Your task to perform on an android device: Open Google Maps and go to "Timeline" Image 0: 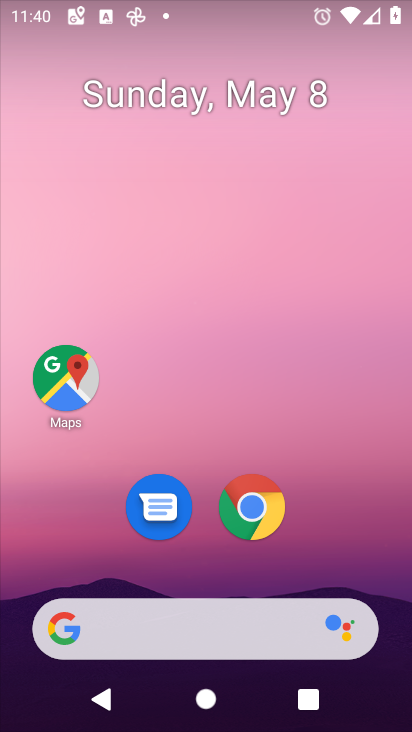
Step 0: click (70, 381)
Your task to perform on an android device: Open Google Maps and go to "Timeline" Image 1: 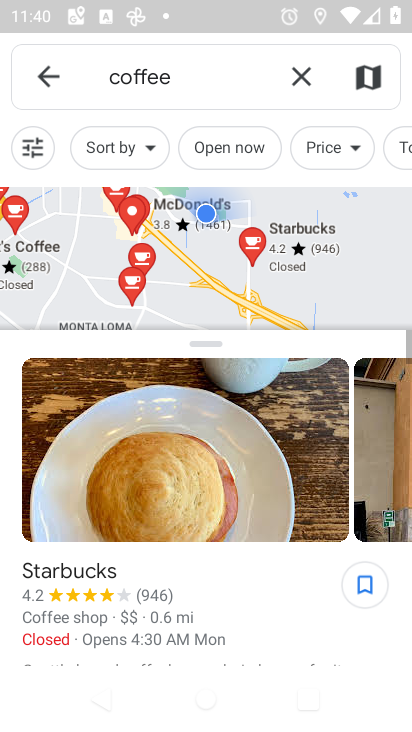
Step 1: click (51, 69)
Your task to perform on an android device: Open Google Maps and go to "Timeline" Image 2: 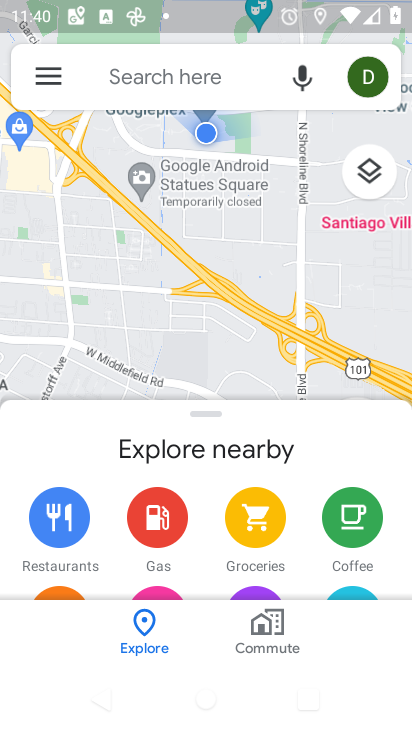
Step 2: click (51, 81)
Your task to perform on an android device: Open Google Maps and go to "Timeline" Image 3: 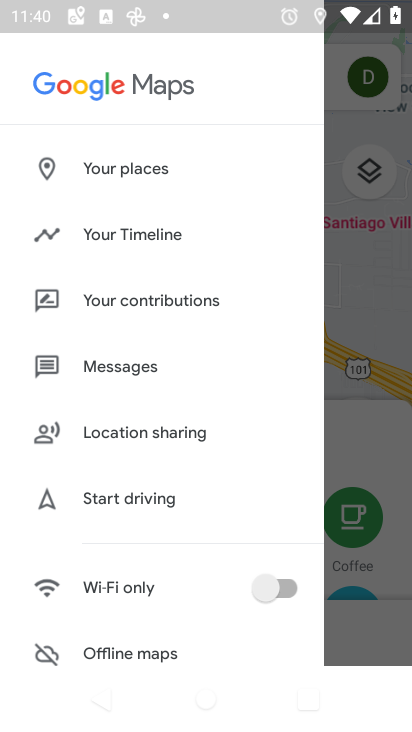
Step 3: click (134, 235)
Your task to perform on an android device: Open Google Maps and go to "Timeline" Image 4: 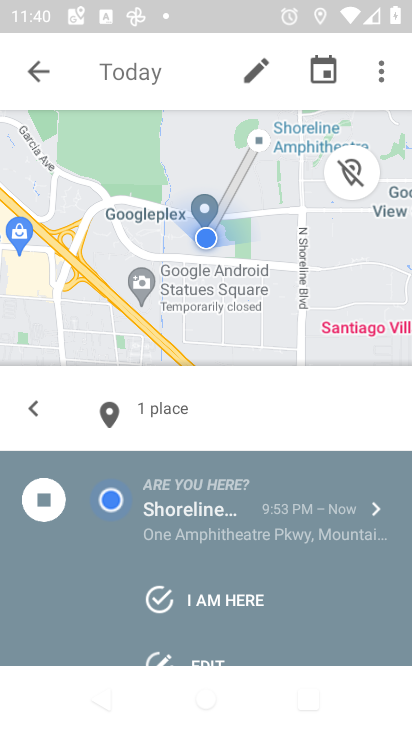
Step 4: click (42, 78)
Your task to perform on an android device: Open Google Maps and go to "Timeline" Image 5: 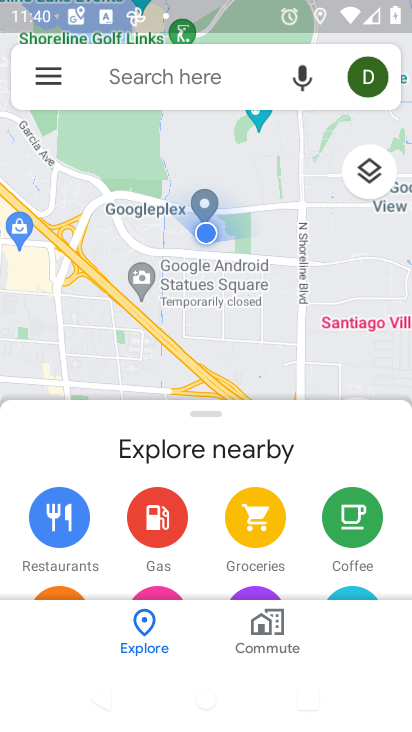
Step 5: click (41, 65)
Your task to perform on an android device: Open Google Maps and go to "Timeline" Image 6: 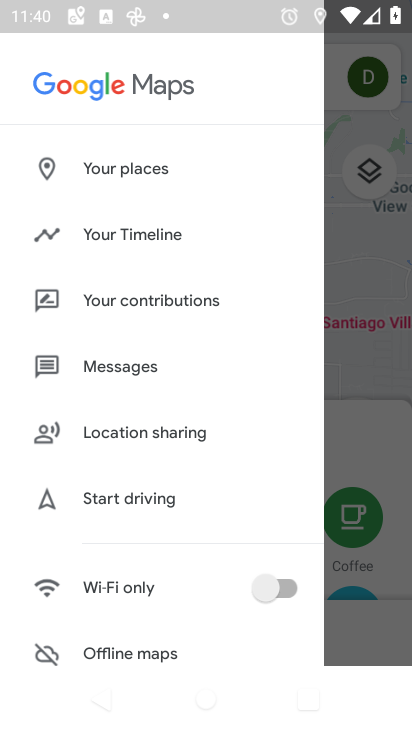
Step 6: click (167, 229)
Your task to perform on an android device: Open Google Maps and go to "Timeline" Image 7: 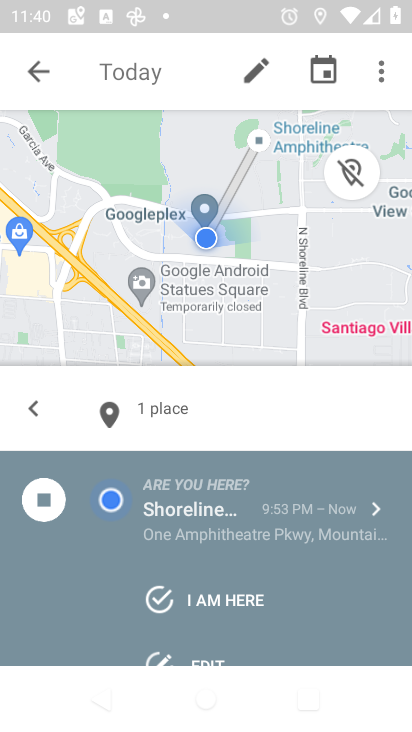
Step 7: task complete